Your task to perform on an android device: Open Wikipedia Image 0: 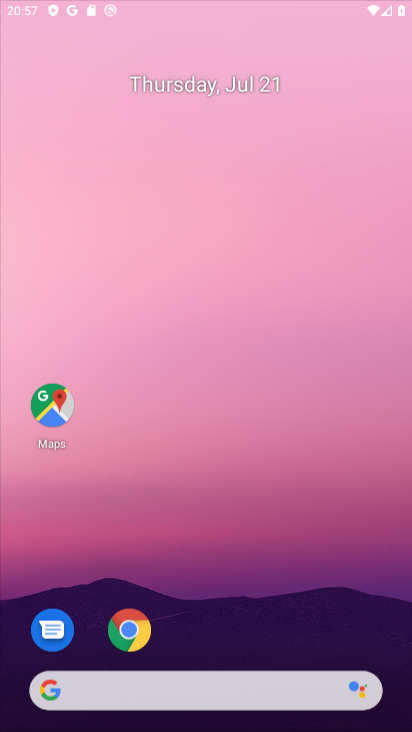
Step 0: click (306, 74)
Your task to perform on an android device: Open Wikipedia Image 1: 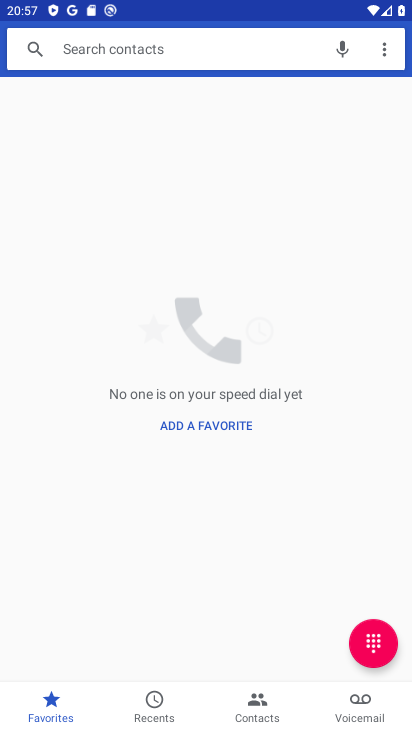
Step 1: press home button
Your task to perform on an android device: Open Wikipedia Image 2: 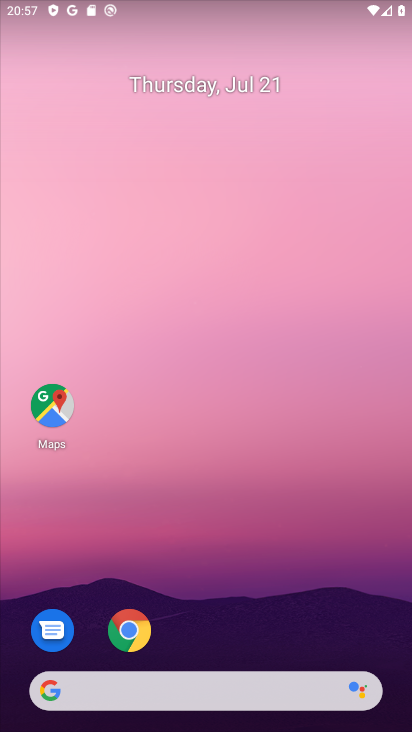
Step 2: drag from (260, 617) to (203, 77)
Your task to perform on an android device: Open Wikipedia Image 3: 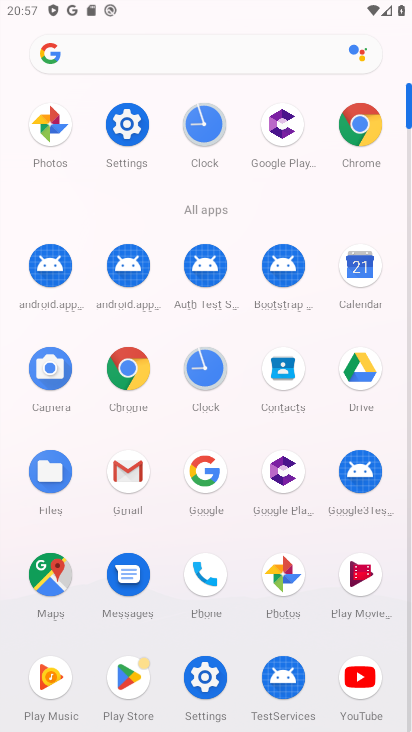
Step 3: click (128, 368)
Your task to perform on an android device: Open Wikipedia Image 4: 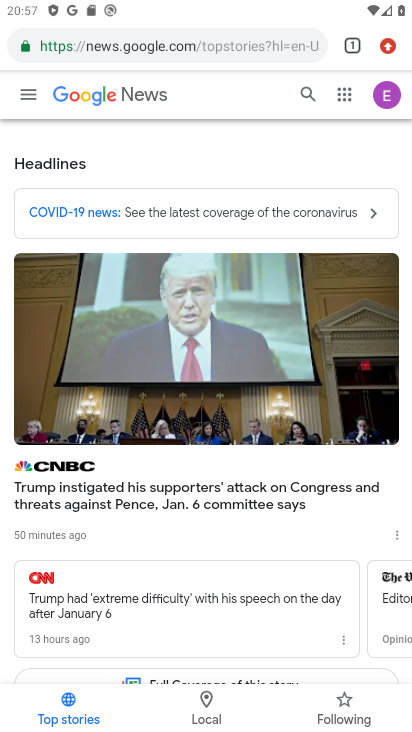
Step 4: click (159, 55)
Your task to perform on an android device: Open Wikipedia Image 5: 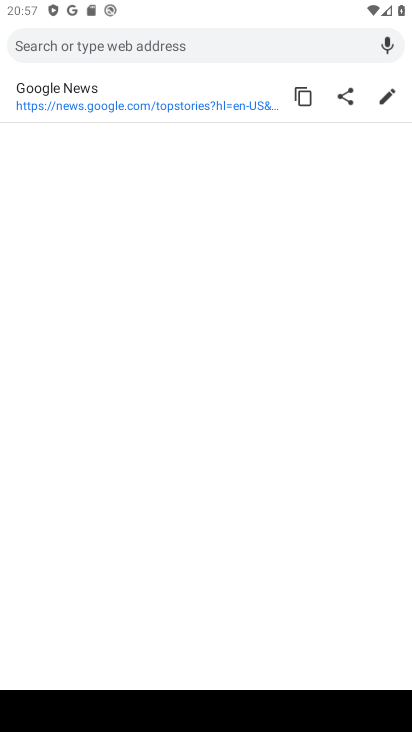
Step 5: type "wikipedia"
Your task to perform on an android device: Open Wikipedia Image 6: 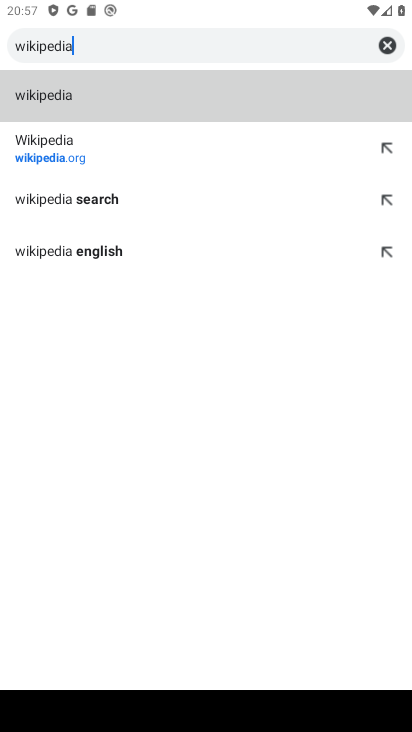
Step 6: click (46, 162)
Your task to perform on an android device: Open Wikipedia Image 7: 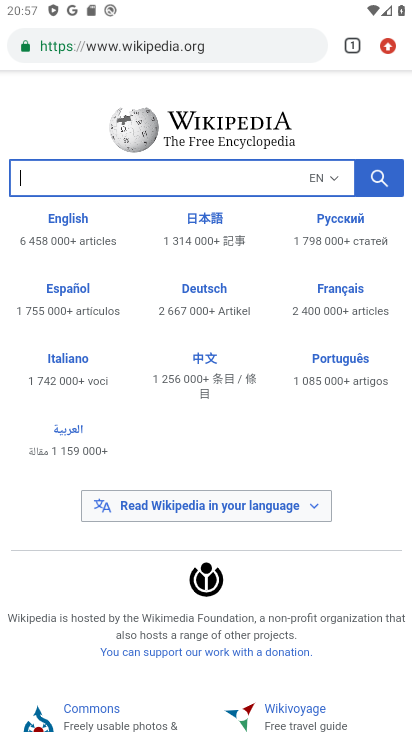
Step 7: task complete